Your task to perform on an android device: Show me popular games on the Play Store Image 0: 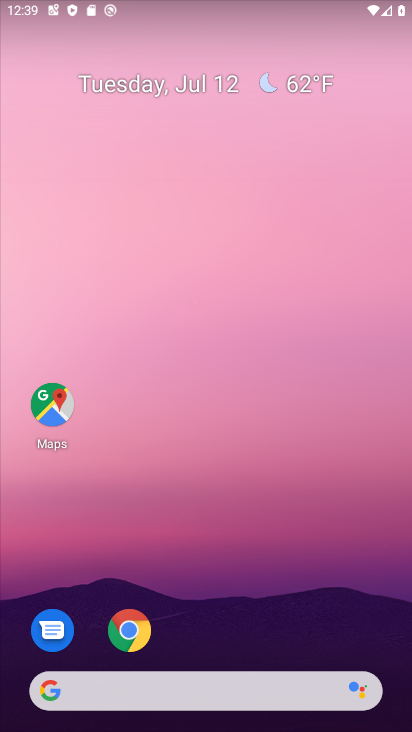
Step 0: drag from (269, 546) to (187, 79)
Your task to perform on an android device: Show me popular games on the Play Store Image 1: 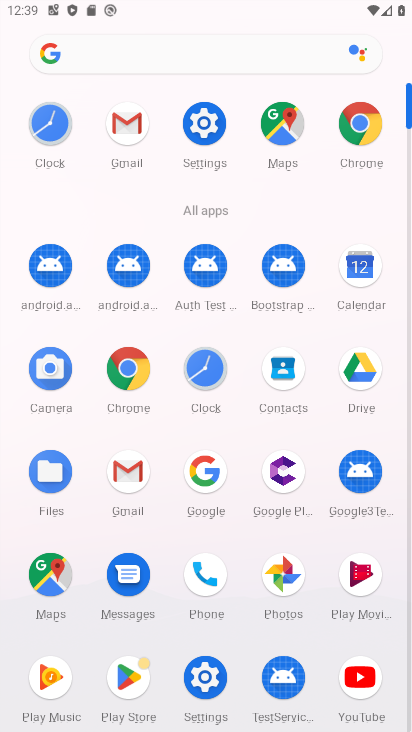
Step 1: click (126, 673)
Your task to perform on an android device: Show me popular games on the Play Store Image 2: 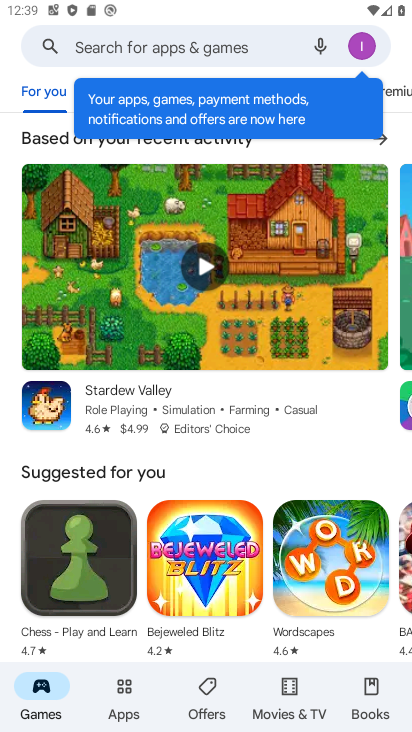
Step 2: task complete